Your task to perform on an android device: turn pop-ups on in chrome Image 0: 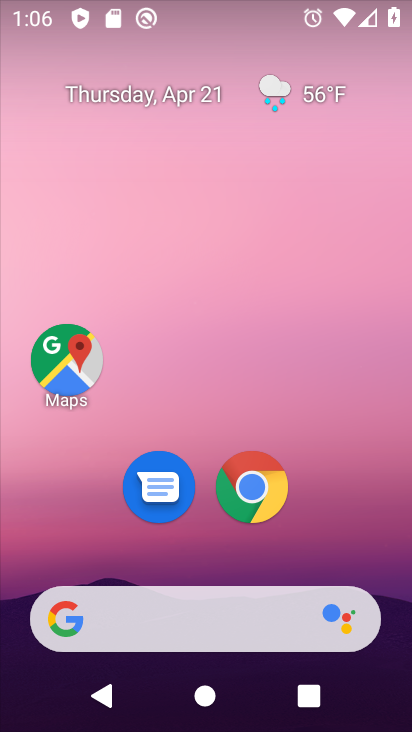
Step 0: click (251, 502)
Your task to perform on an android device: turn pop-ups on in chrome Image 1: 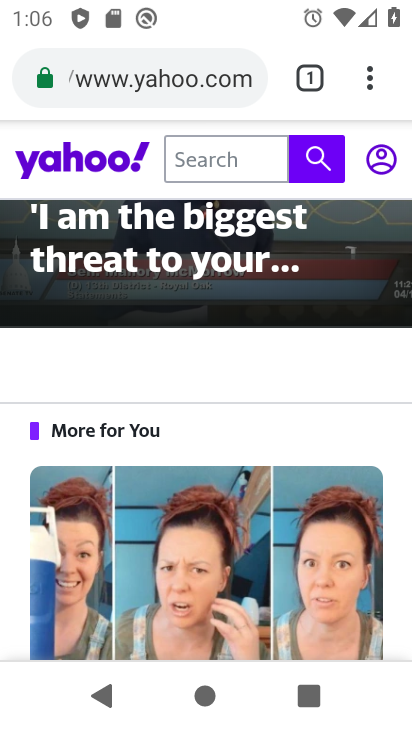
Step 1: drag from (369, 84) to (118, 549)
Your task to perform on an android device: turn pop-ups on in chrome Image 2: 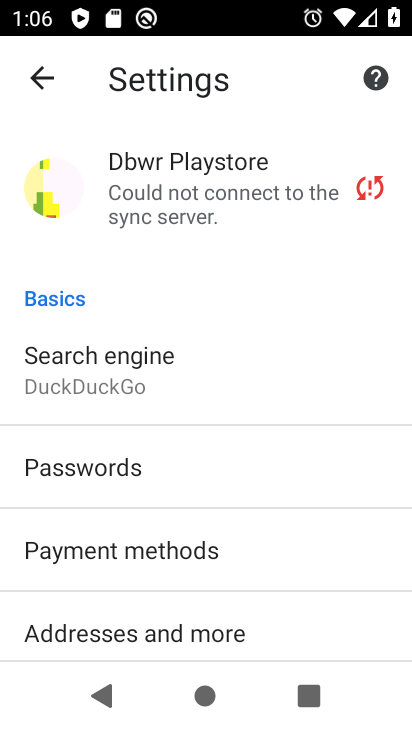
Step 2: drag from (286, 643) to (282, 225)
Your task to perform on an android device: turn pop-ups on in chrome Image 3: 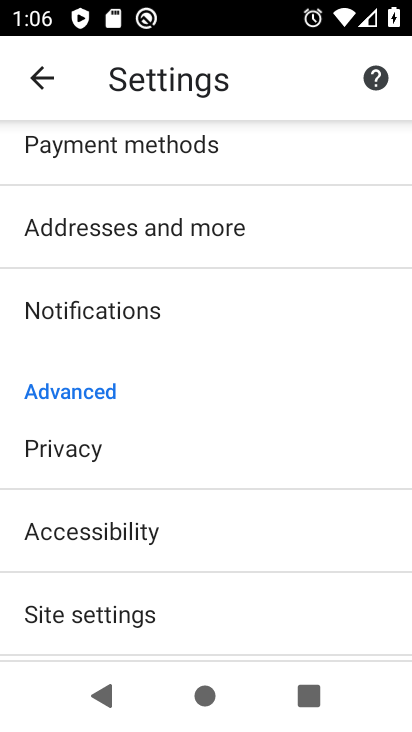
Step 3: click (99, 612)
Your task to perform on an android device: turn pop-ups on in chrome Image 4: 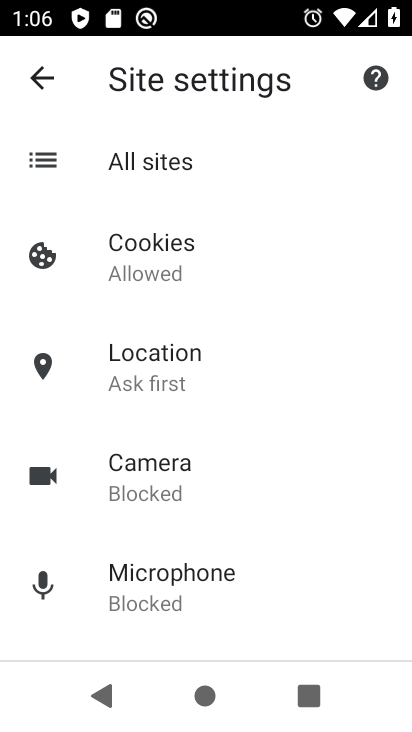
Step 4: drag from (175, 585) to (166, 312)
Your task to perform on an android device: turn pop-ups on in chrome Image 5: 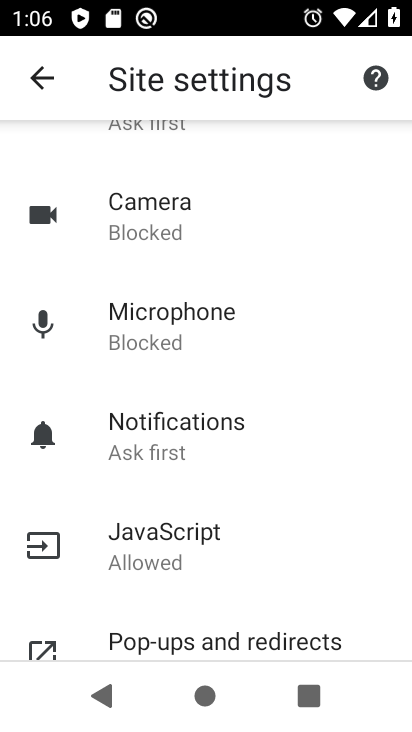
Step 5: click (160, 637)
Your task to perform on an android device: turn pop-ups on in chrome Image 6: 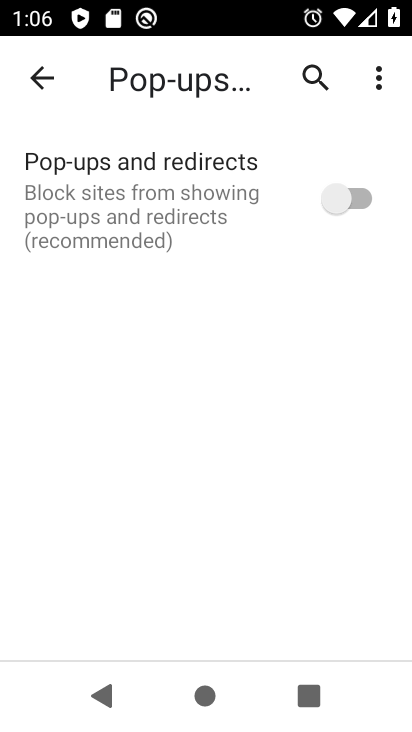
Step 6: click (342, 203)
Your task to perform on an android device: turn pop-ups on in chrome Image 7: 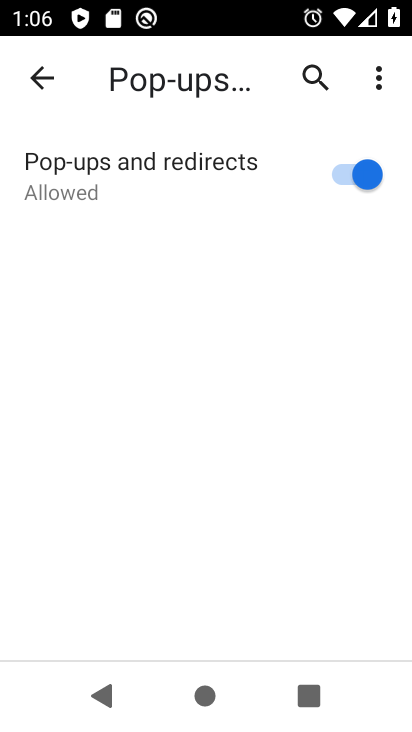
Step 7: task complete